Your task to perform on an android device: move a message to another label in the gmail app Image 0: 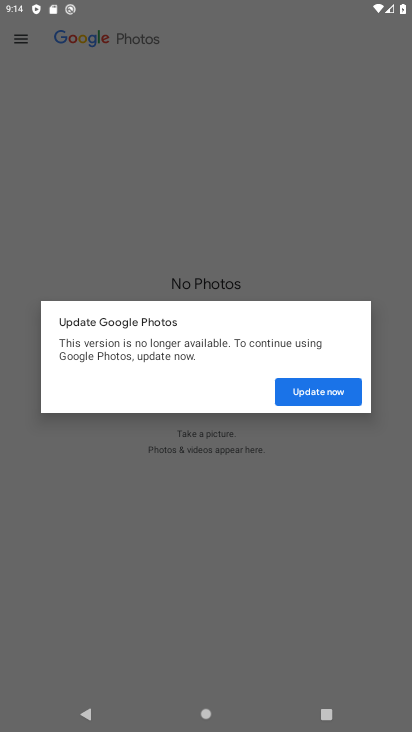
Step 0: press home button
Your task to perform on an android device: move a message to another label in the gmail app Image 1: 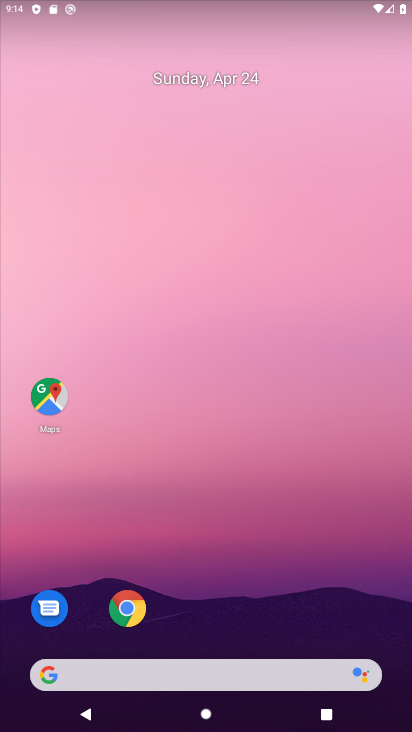
Step 1: drag from (291, 690) to (316, 209)
Your task to perform on an android device: move a message to another label in the gmail app Image 2: 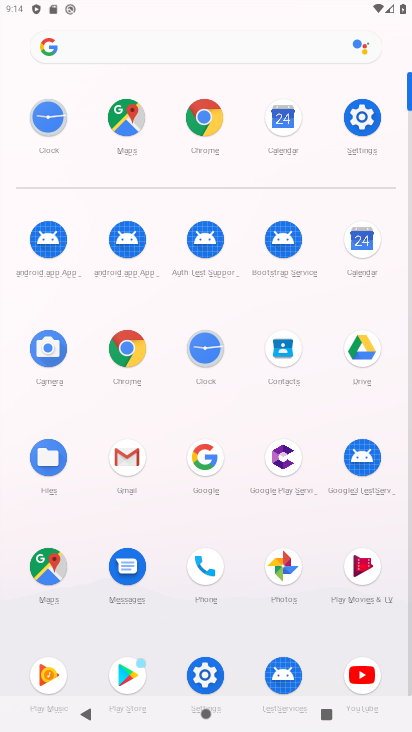
Step 2: click (132, 461)
Your task to perform on an android device: move a message to another label in the gmail app Image 3: 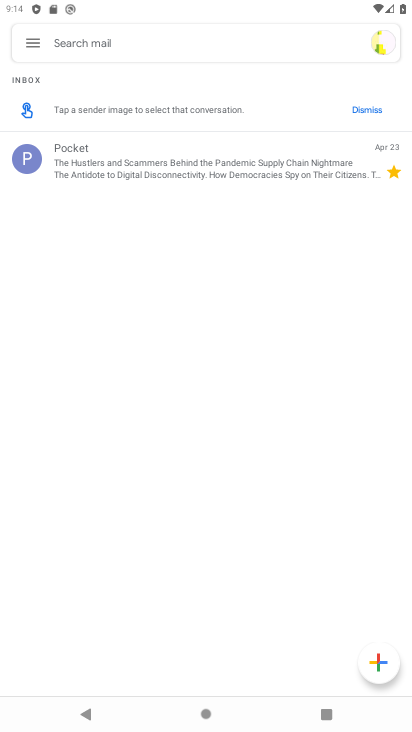
Step 3: click (41, 46)
Your task to perform on an android device: move a message to another label in the gmail app Image 4: 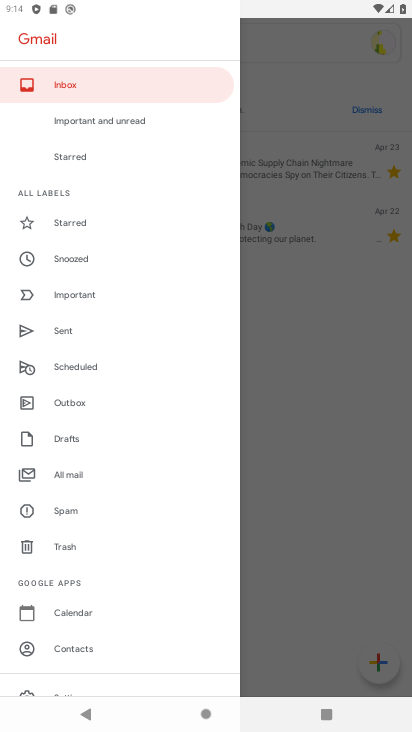
Step 4: click (74, 685)
Your task to perform on an android device: move a message to another label in the gmail app Image 5: 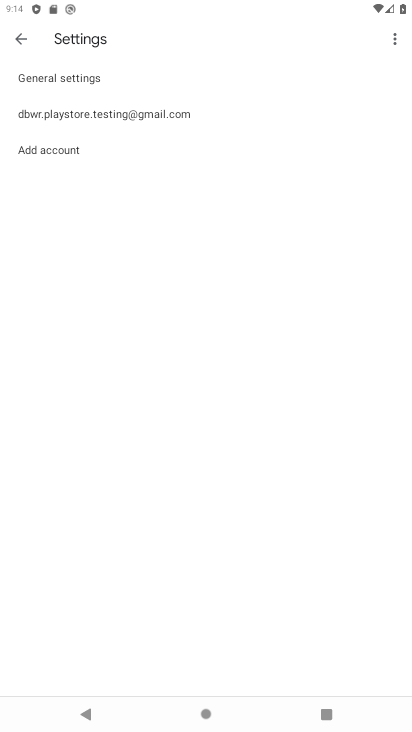
Step 5: click (70, 121)
Your task to perform on an android device: move a message to another label in the gmail app Image 6: 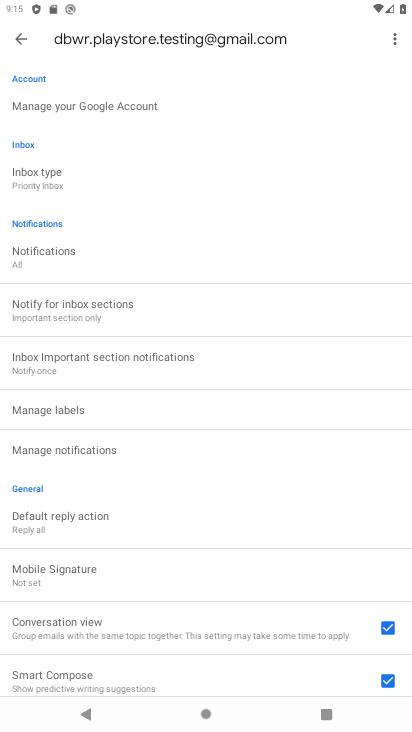
Step 6: click (87, 413)
Your task to perform on an android device: move a message to another label in the gmail app Image 7: 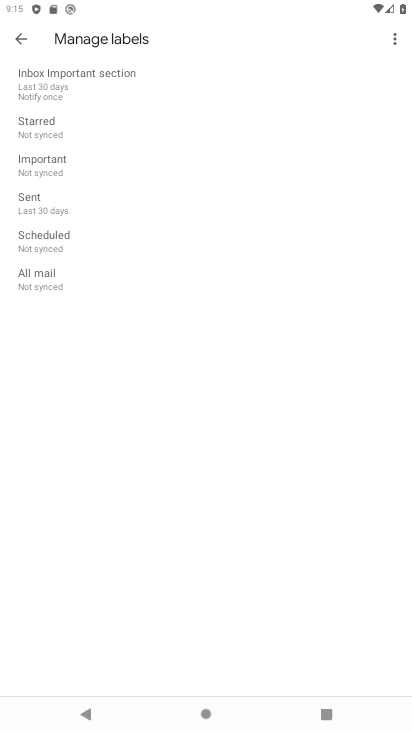
Step 7: click (134, 233)
Your task to perform on an android device: move a message to another label in the gmail app Image 8: 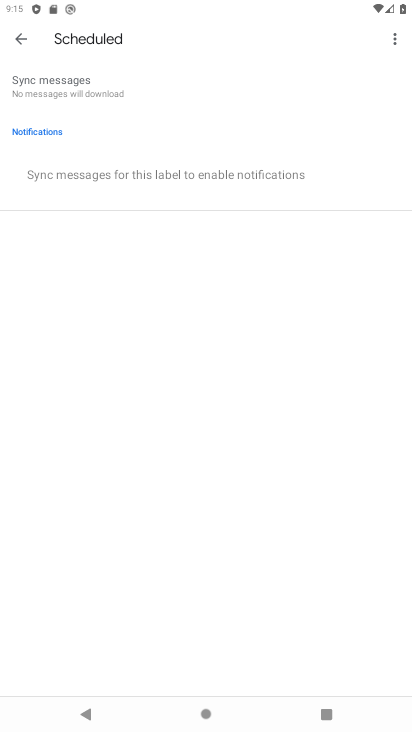
Step 8: task complete